Your task to perform on an android device: How much does a 2 bedroom apartment rent for in New York? Image 0: 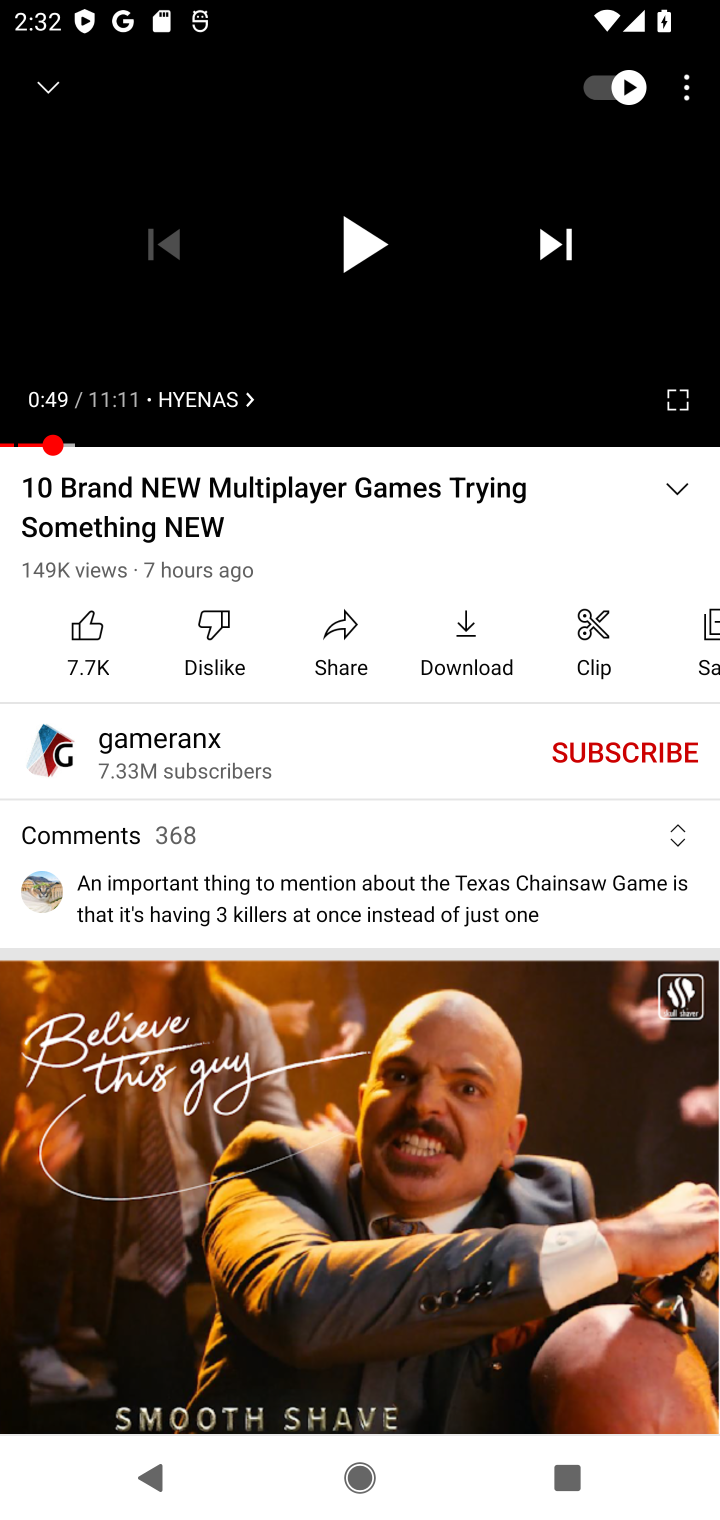
Step 0: press home button
Your task to perform on an android device: How much does a 2 bedroom apartment rent for in New York? Image 1: 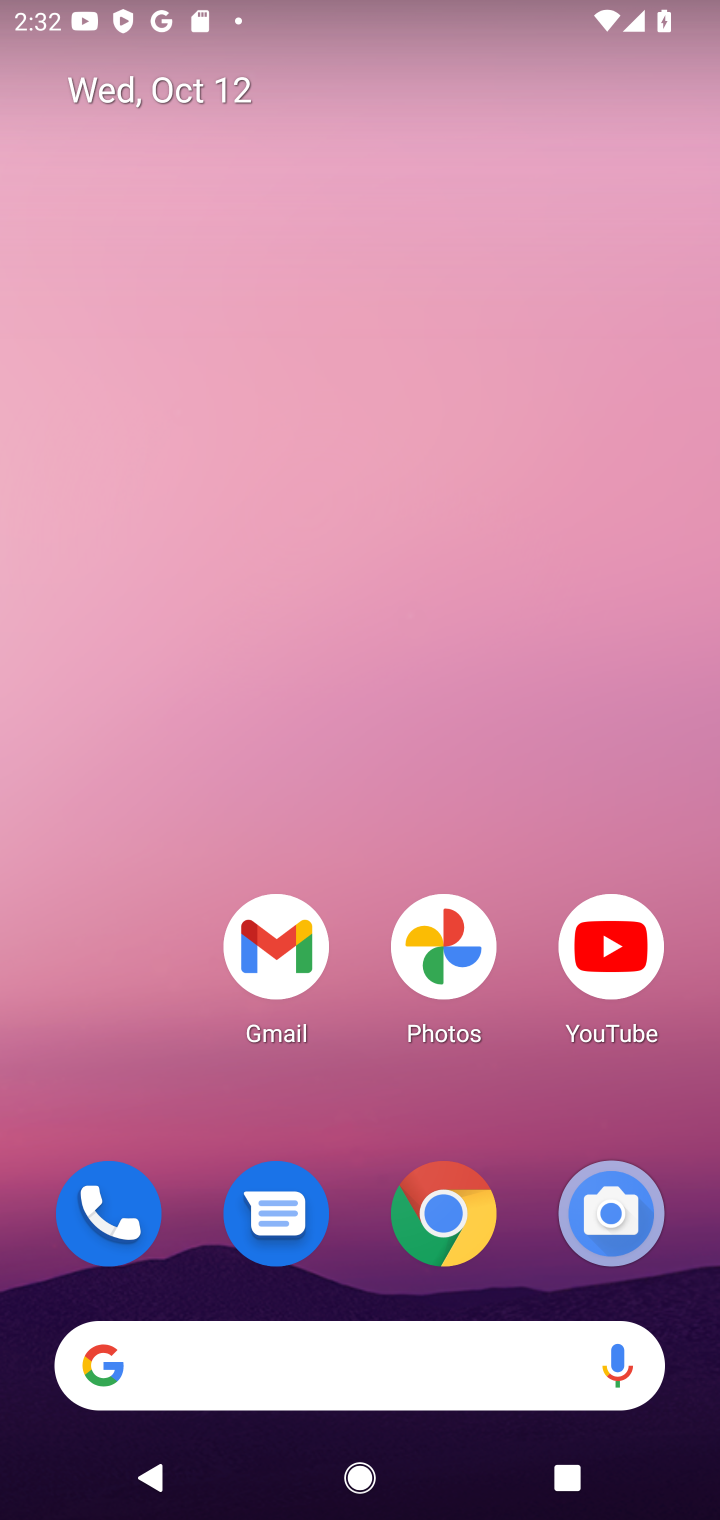
Step 1: click (284, 1389)
Your task to perform on an android device: How much does a 2 bedroom apartment rent for in New York? Image 2: 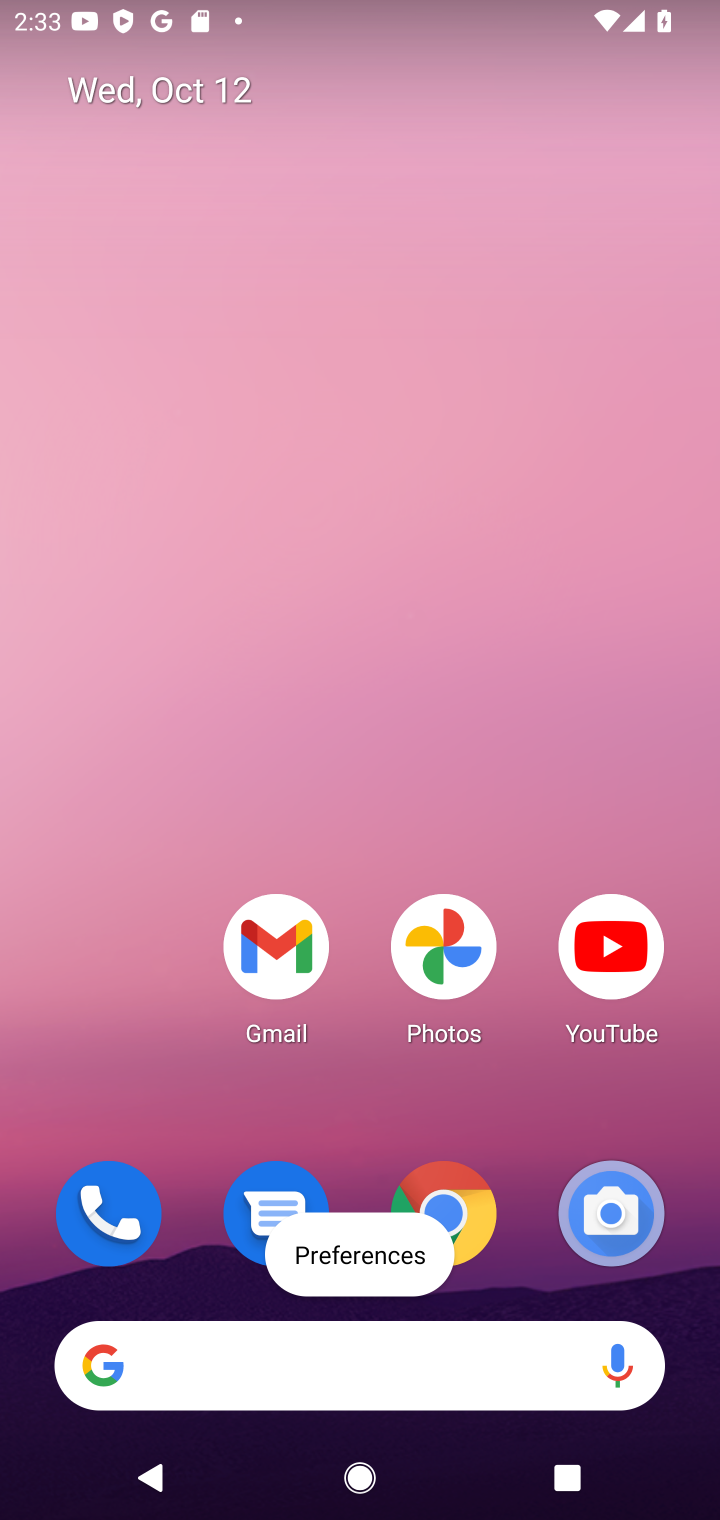
Step 2: click (286, 1357)
Your task to perform on an android device: How much does a 2 bedroom apartment rent for in New York? Image 3: 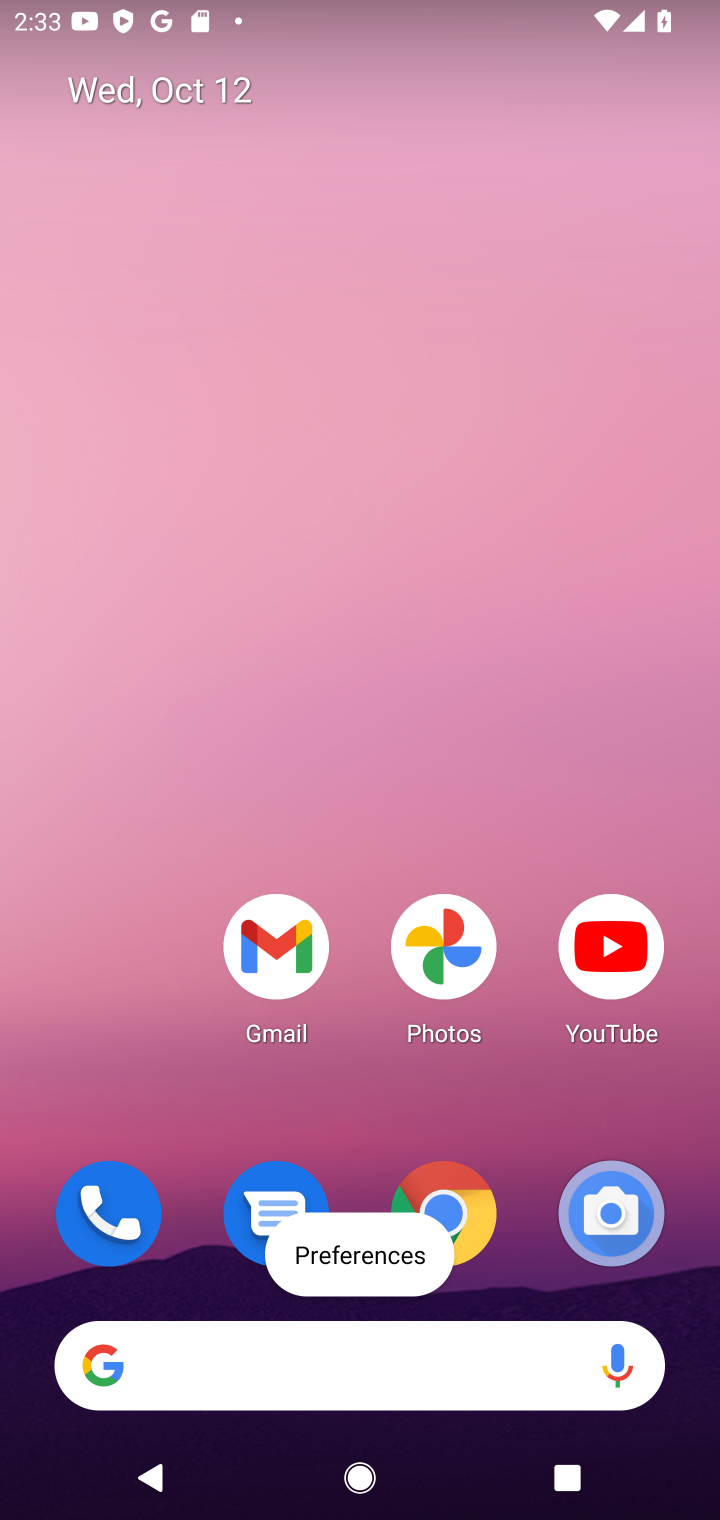
Step 3: click (288, 1368)
Your task to perform on an android device: How much does a 2 bedroom apartment rent for in New York? Image 4: 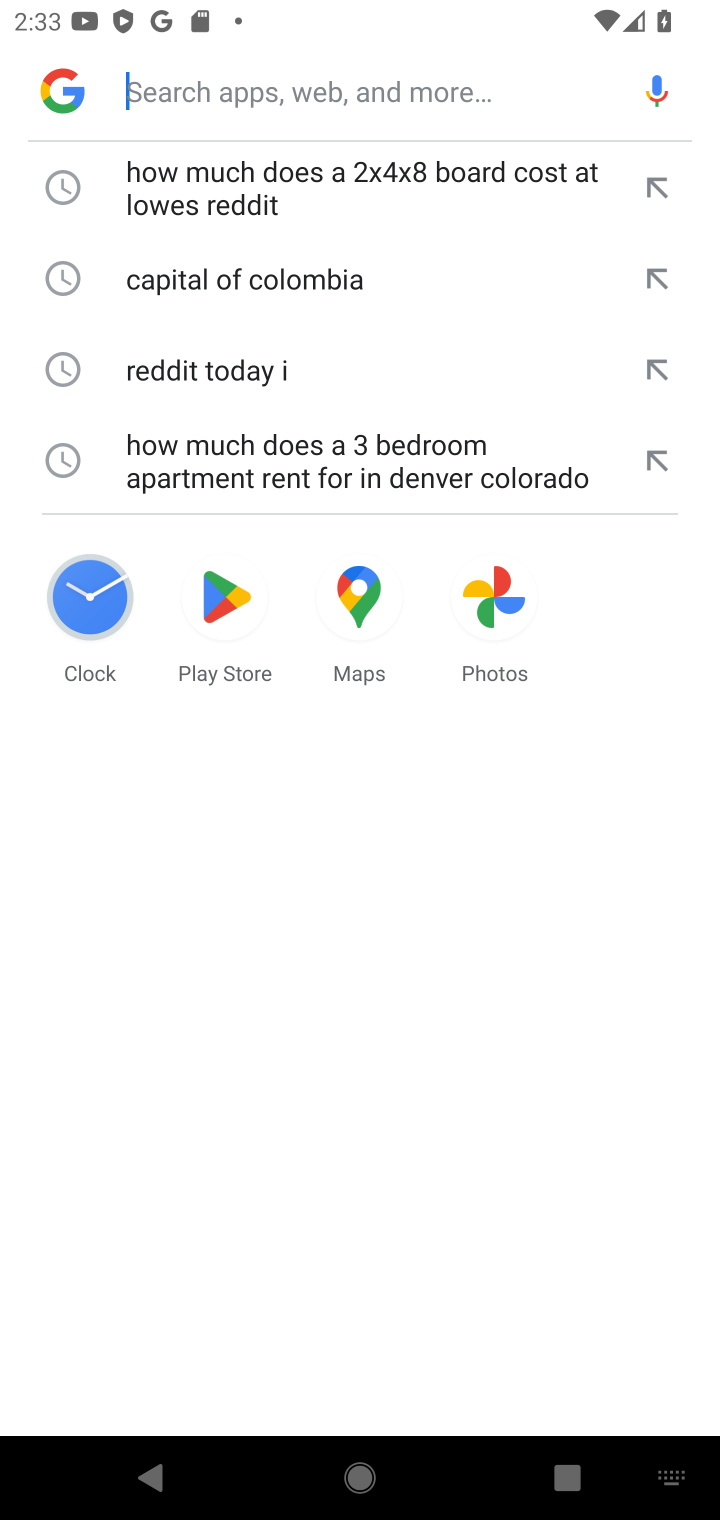
Step 4: click (203, 90)
Your task to perform on an android device: How much does a 2 bedroom apartment rent for in New York? Image 5: 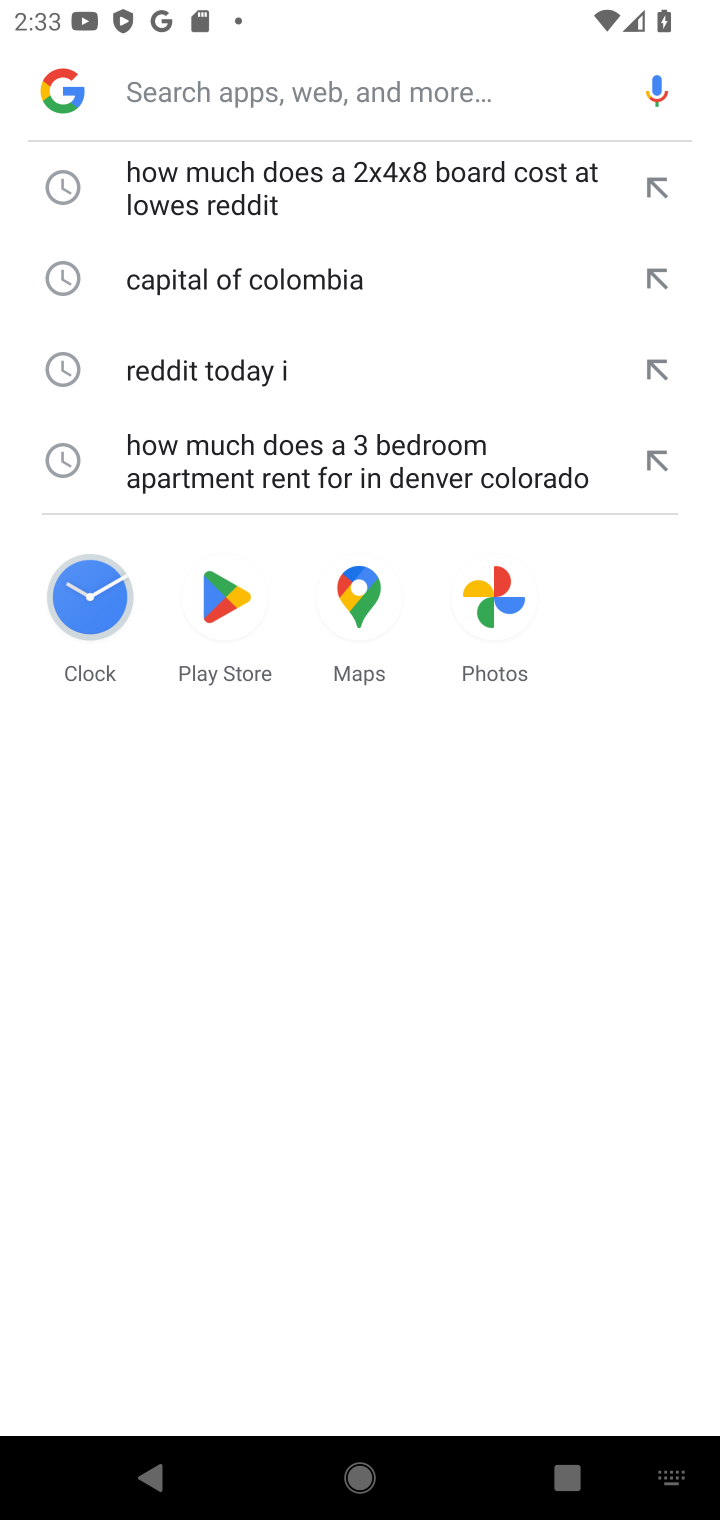
Step 5: type "How much does a 2 bedroom apartment rent for in New York?"
Your task to perform on an android device: How much does a 2 bedroom apartment rent for in New York? Image 6: 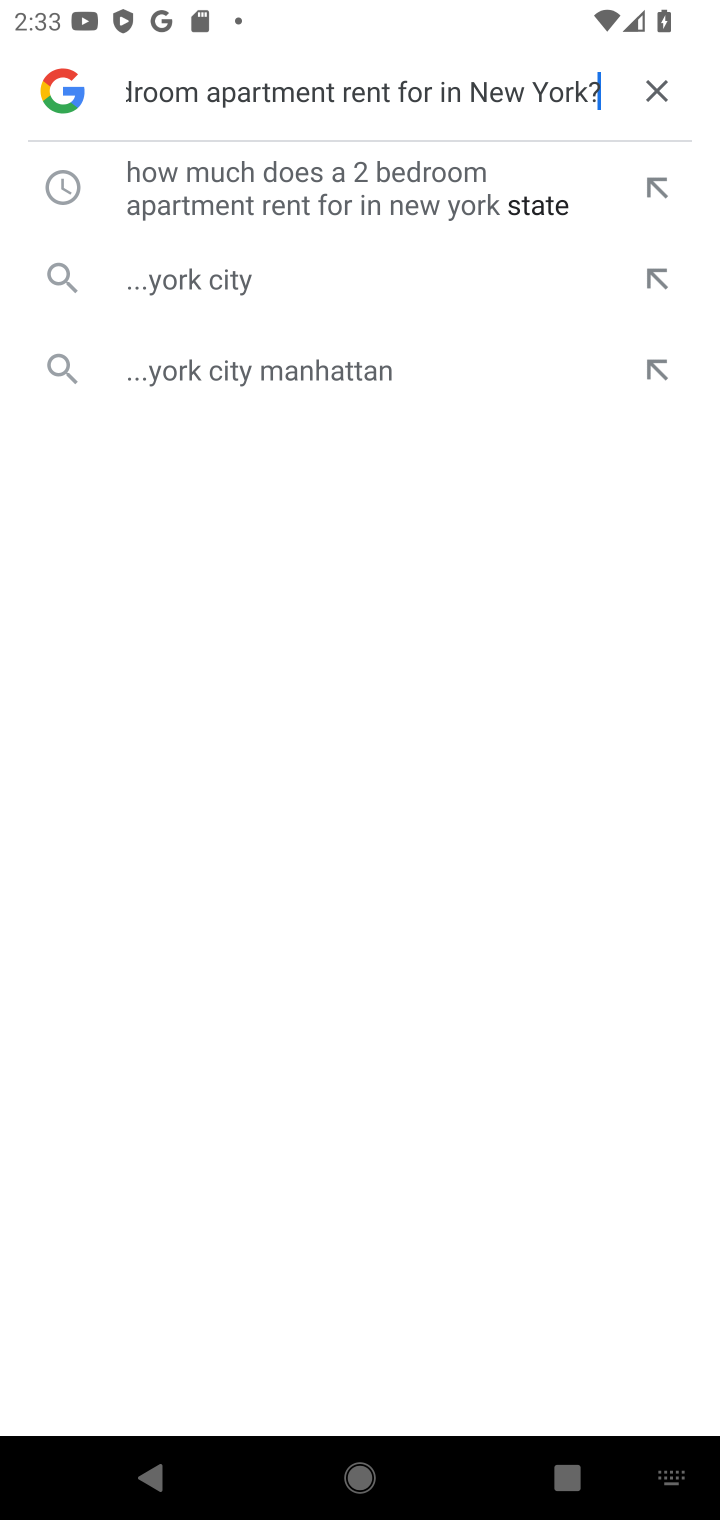
Step 6: click (389, 193)
Your task to perform on an android device: How much does a 2 bedroom apartment rent for in New York? Image 7: 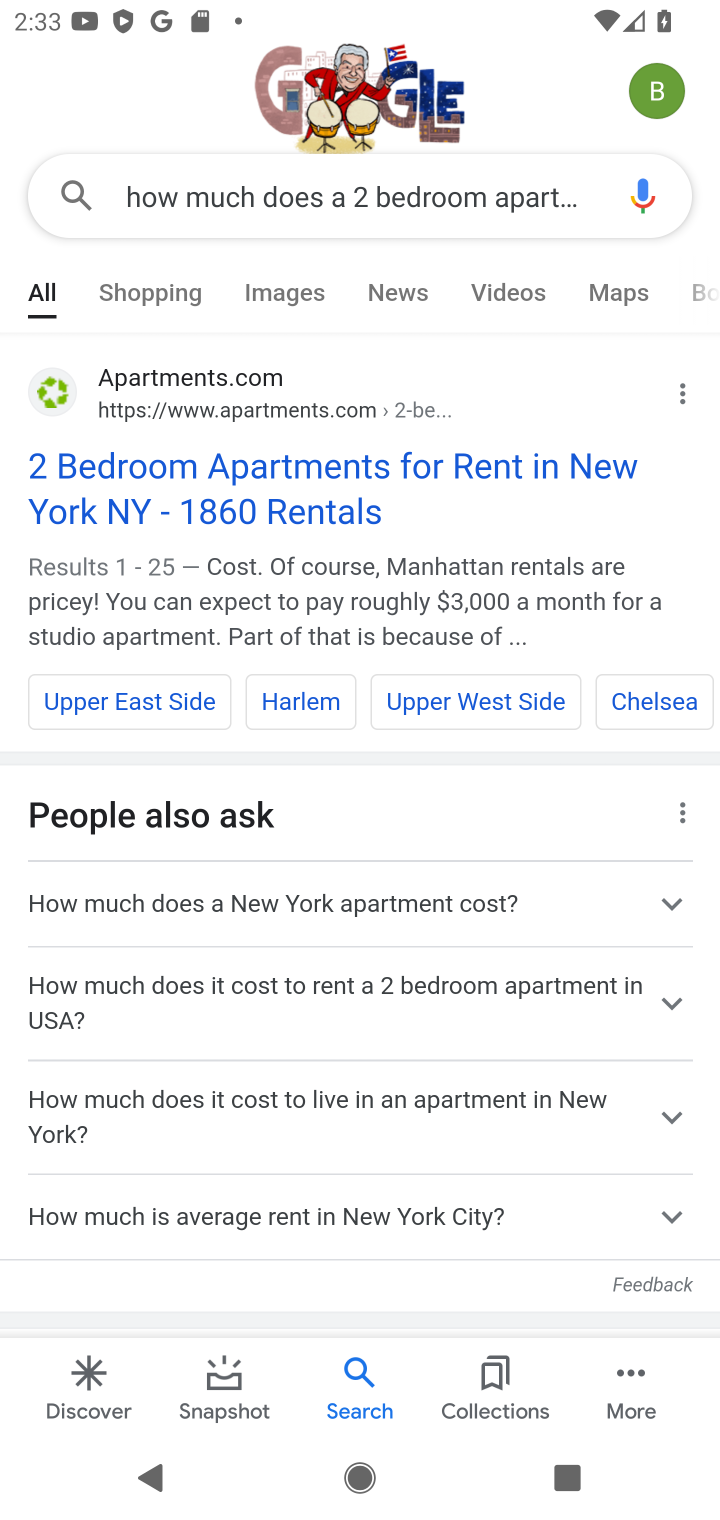
Step 7: click (256, 489)
Your task to perform on an android device: How much does a 2 bedroom apartment rent for in New York? Image 8: 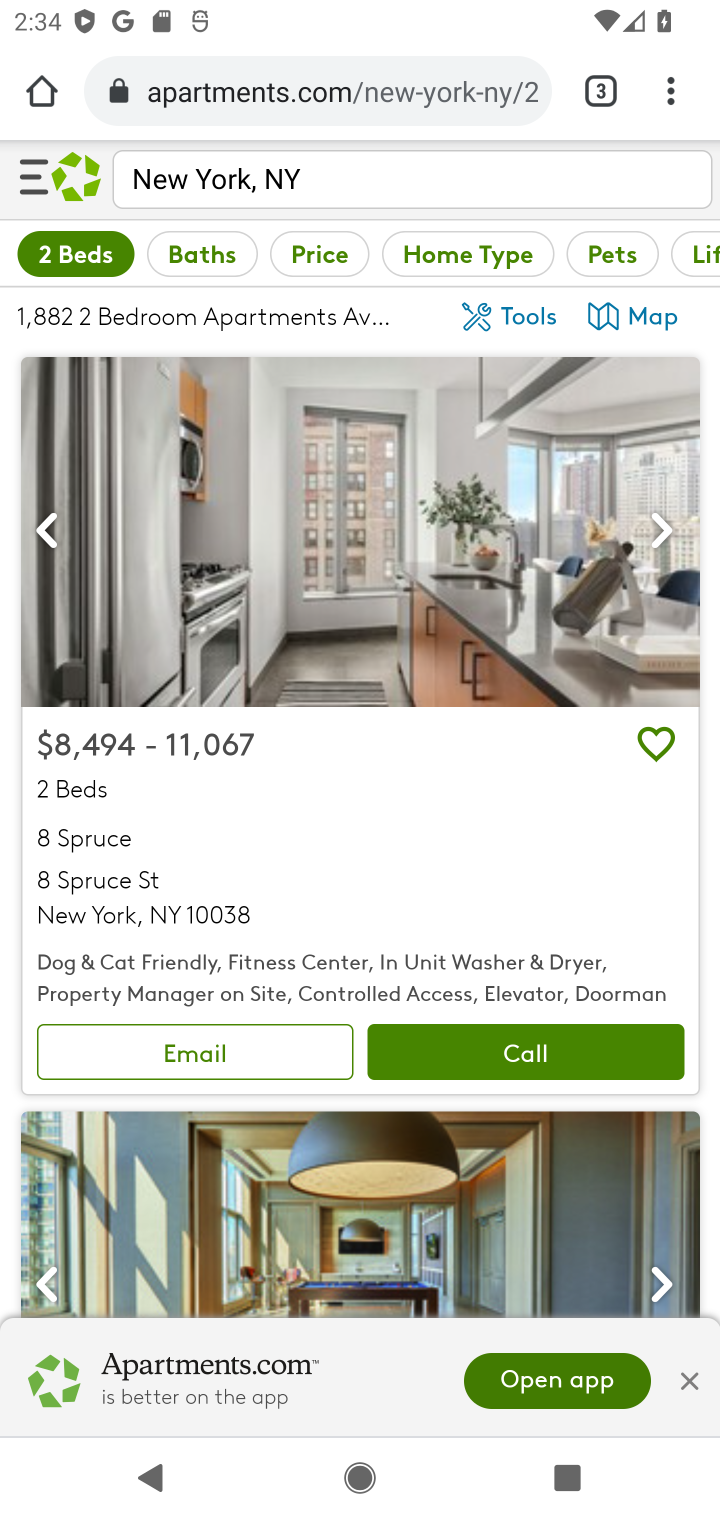
Step 8: task complete